Your task to perform on an android device: Clear all items from cart on amazon. Add "razer deathadder" to the cart on amazon Image 0: 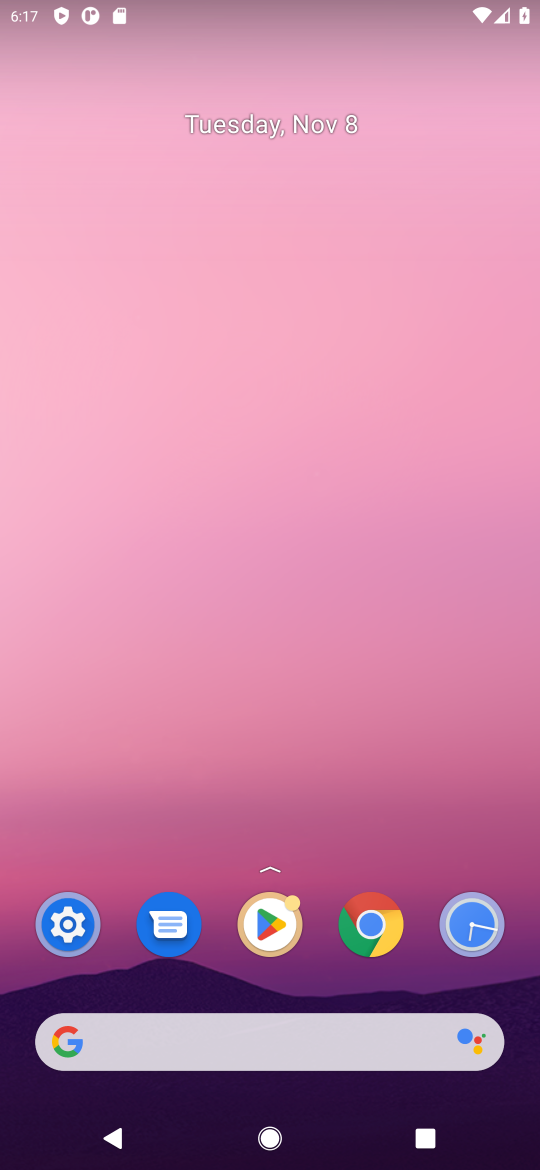
Step 0: click (275, 1039)
Your task to perform on an android device: Clear all items from cart on amazon. Add "razer deathadder" to the cart on amazon Image 1: 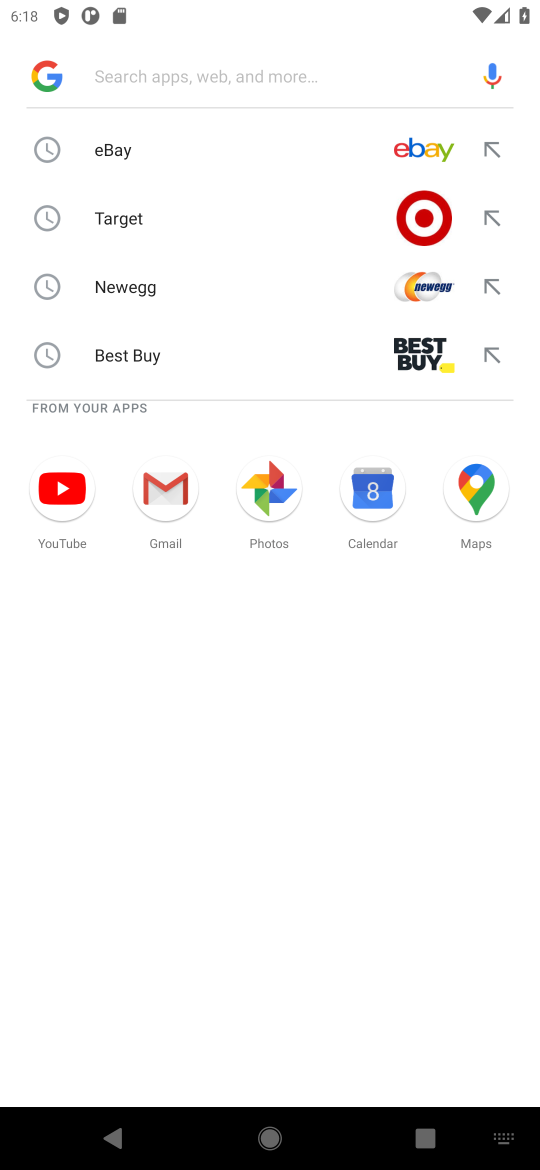
Step 1: type "amazon"
Your task to perform on an android device: Clear all items from cart on amazon. Add "razer deathadder" to the cart on amazon Image 2: 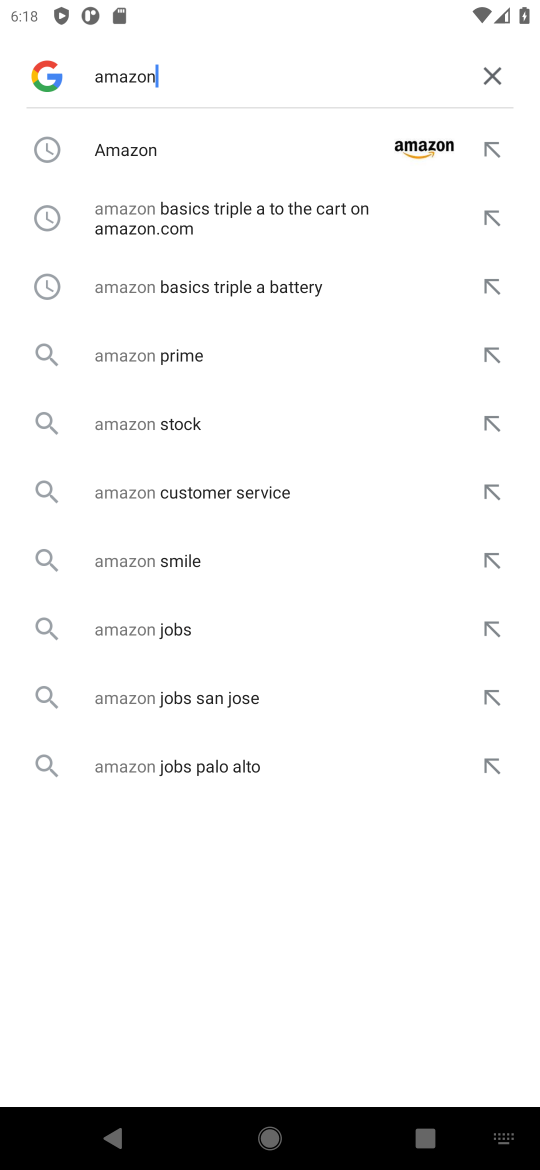
Step 2: click (324, 155)
Your task to perform on an android device: Clear all items from cart on amazon. Add "razer deathadder" to the cart on amazon Image 3: 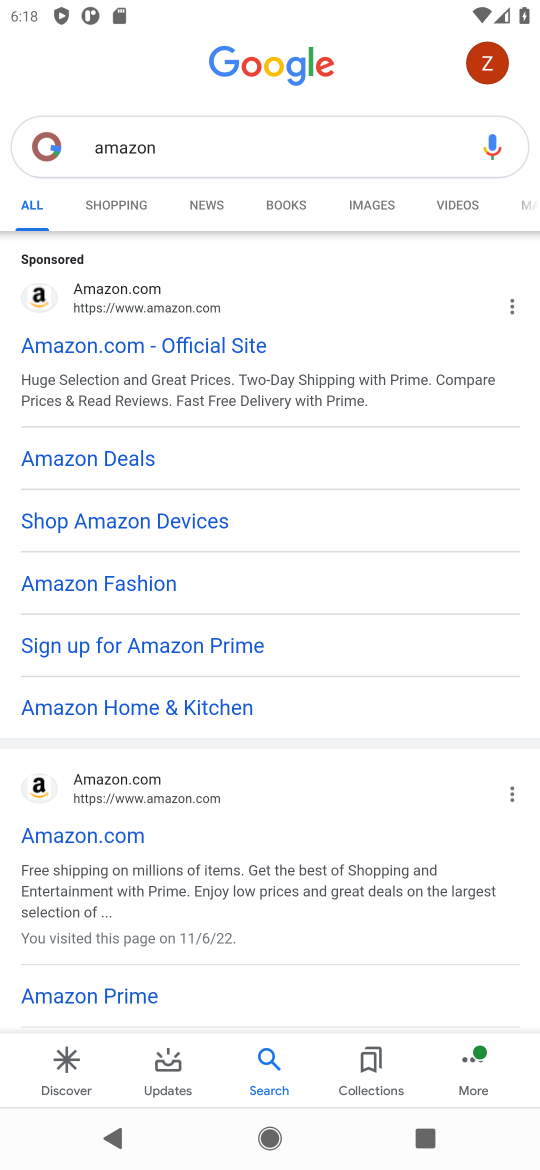
Step 3: click (134, 165)
Your task to perform on an android device: Clear all items from cart on amazon. Add "razer deathadder" to the cart on amazon Image 4: 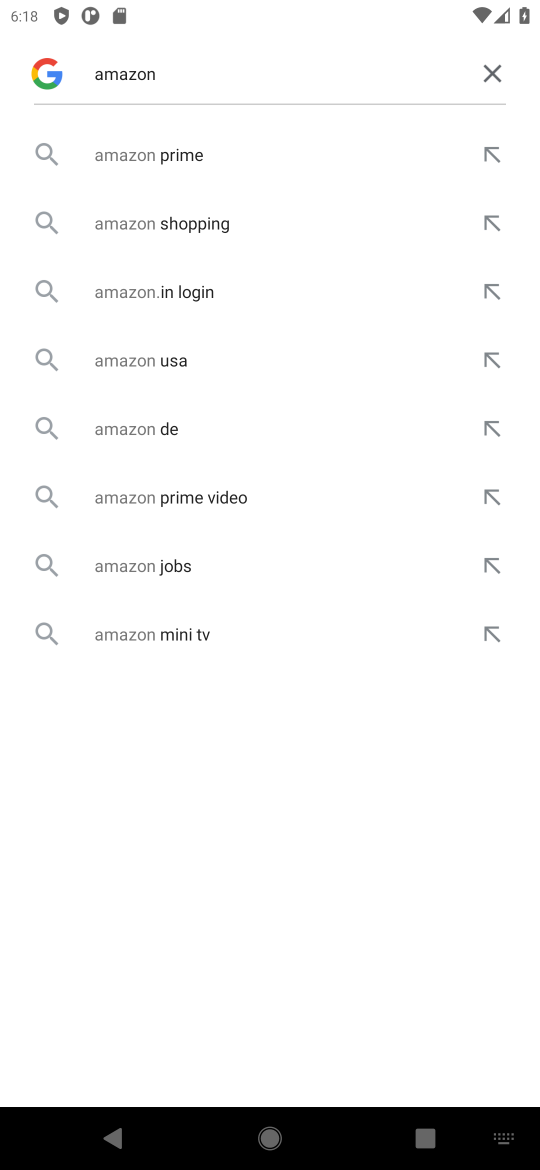
Step 4: click (81, 281)
Your task to perform on an android device: Clear all items from cart on amazon. Add "razer deathadder" to the cart on amazon Image 5: 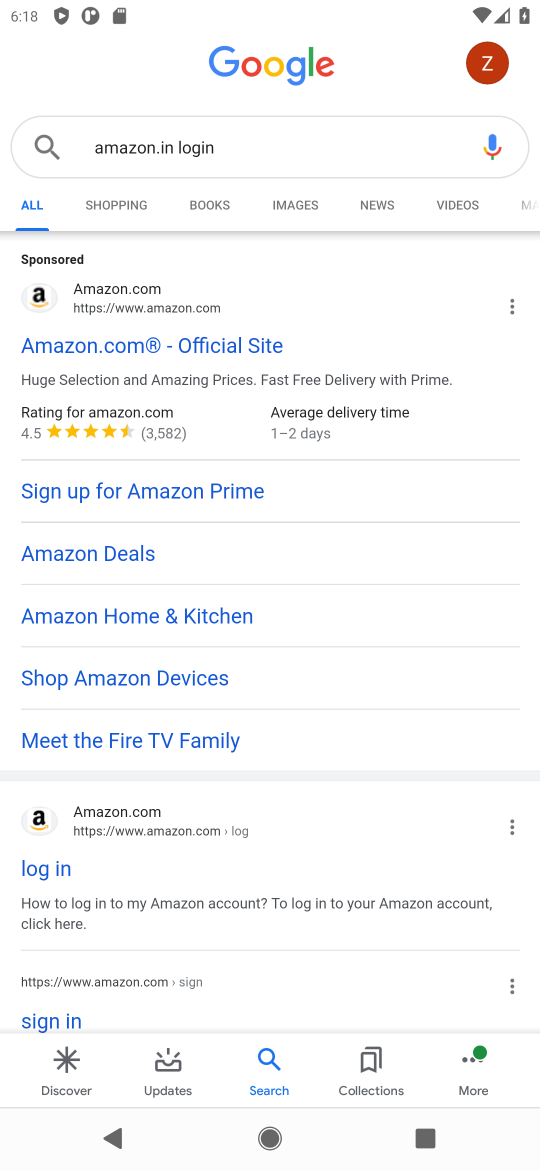
Step 5: click (88, 350)
Your task to perform on an android device: Clear all items from cart on amazon. Add "razer deathadder" to the cart on amazon Image 6: 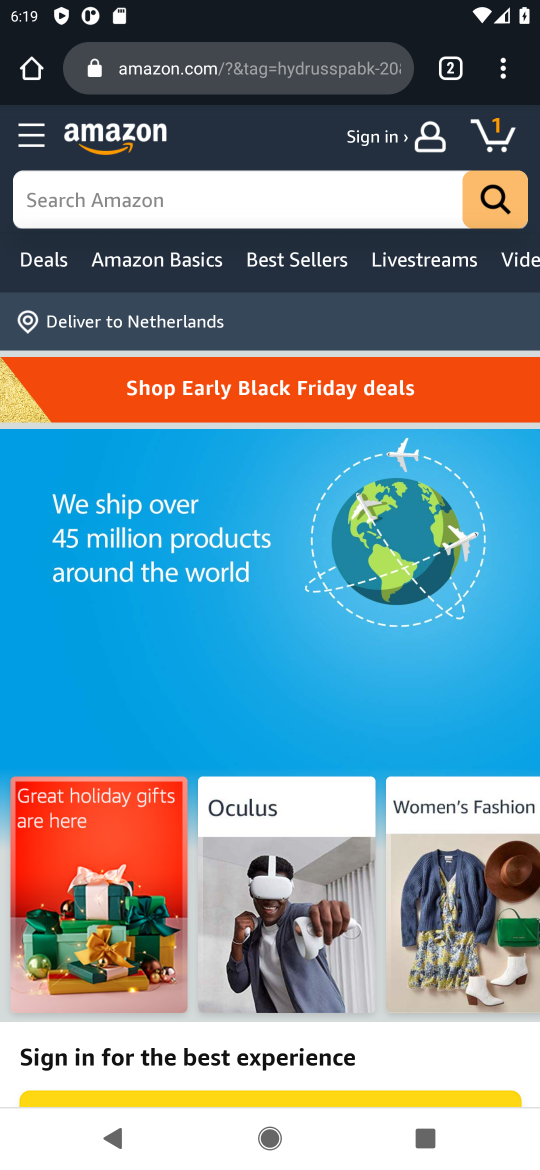
Step 6: click (342, 206)
Your task to perform on an android device: Clear all items from cart on amazon. Add "razer deathadder" to the cart on amazon Image 7: 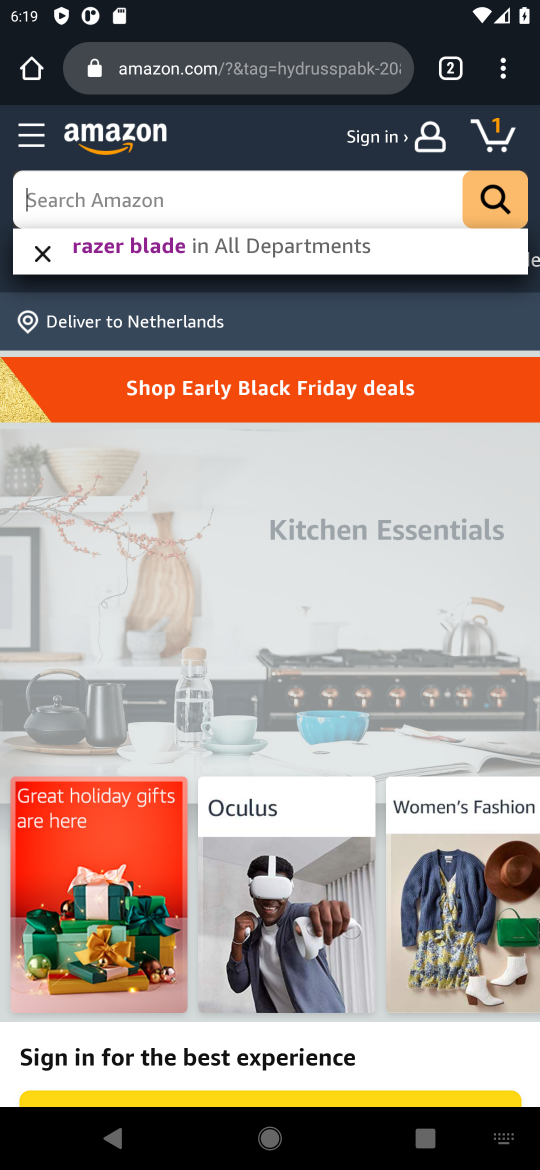
Step 7: click (180, 205)
Your task to perform on an android device: Clear all items from cart on amazon. Add "razer deathadder" to the cart on amazon Image 8: 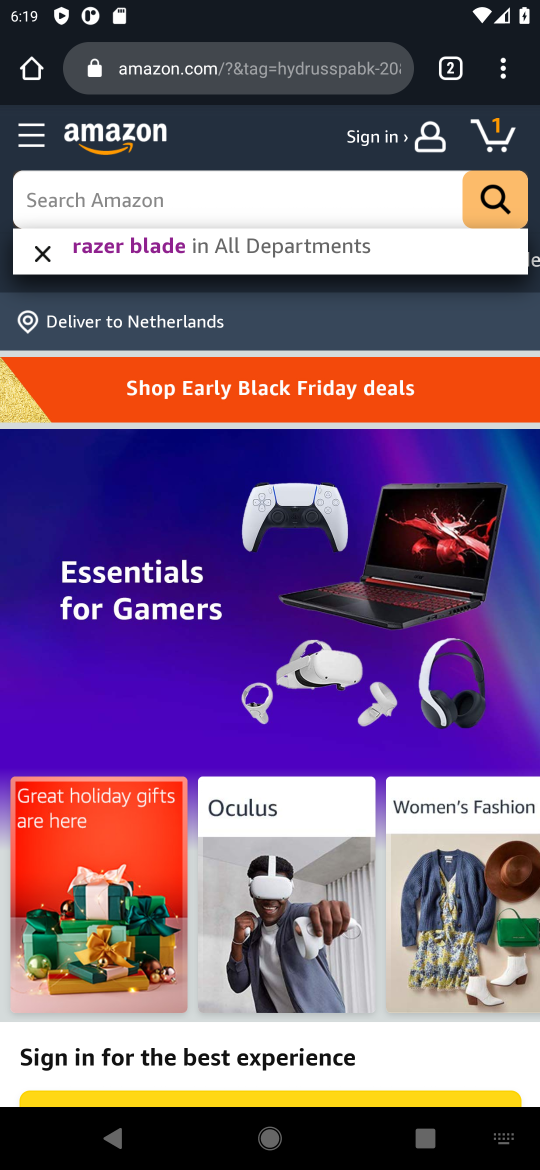
Step 8: type "razer deathadder"
Your task to perform on an android device: Clear all items from cart on amazon. Add "razer deathadder" to the cart on amazon Image 9: 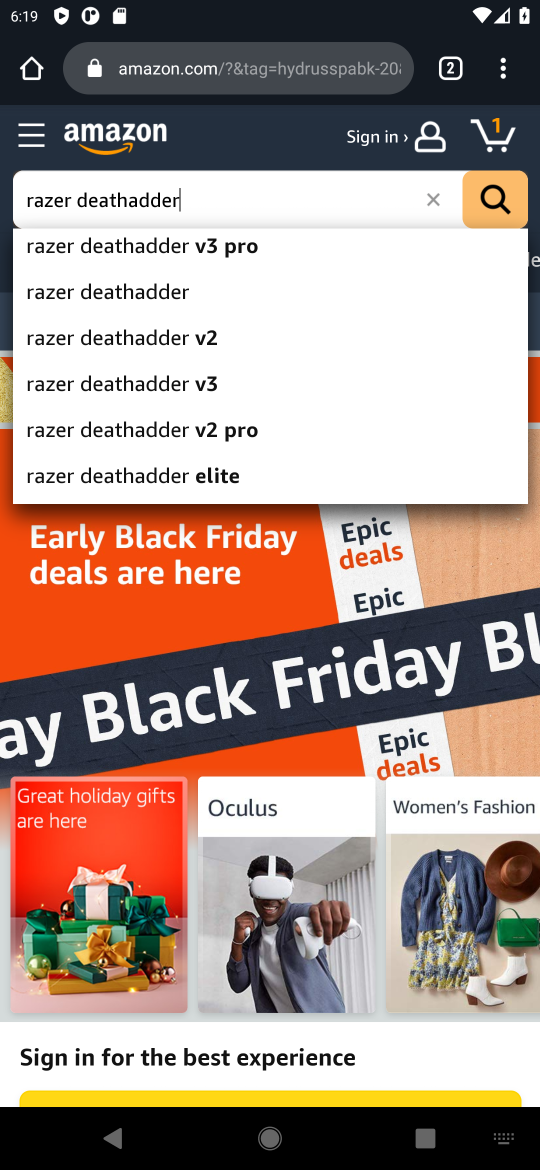
Step 9: click (161, 298)
Your task to perform on an android device: Clear all items from cart on amazon. Add "razer deathadder" to the cart on amazon Image 10: 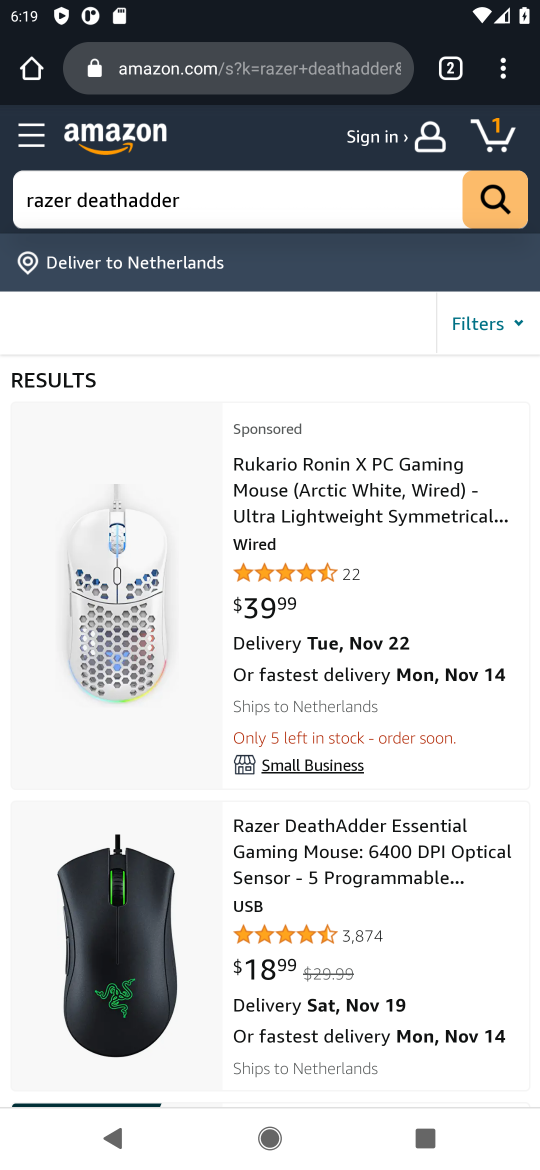
Step 10: click (297, 520)
Your task to perform on an android device: Clear all items from cart on amazon. Add "razer deathadder" to the cart on amazon Image 11: 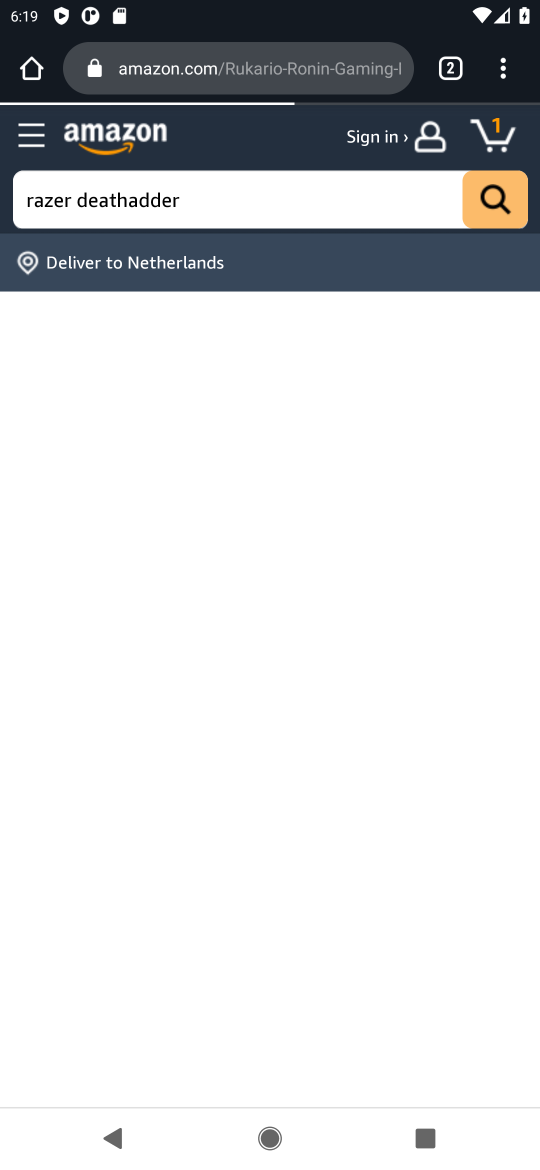
Step 11: click (277, 499)
Your task to perform on an android device: Clear all items from cart on amazon. Add "razer deathadder" to the cart on amazon Image 12: 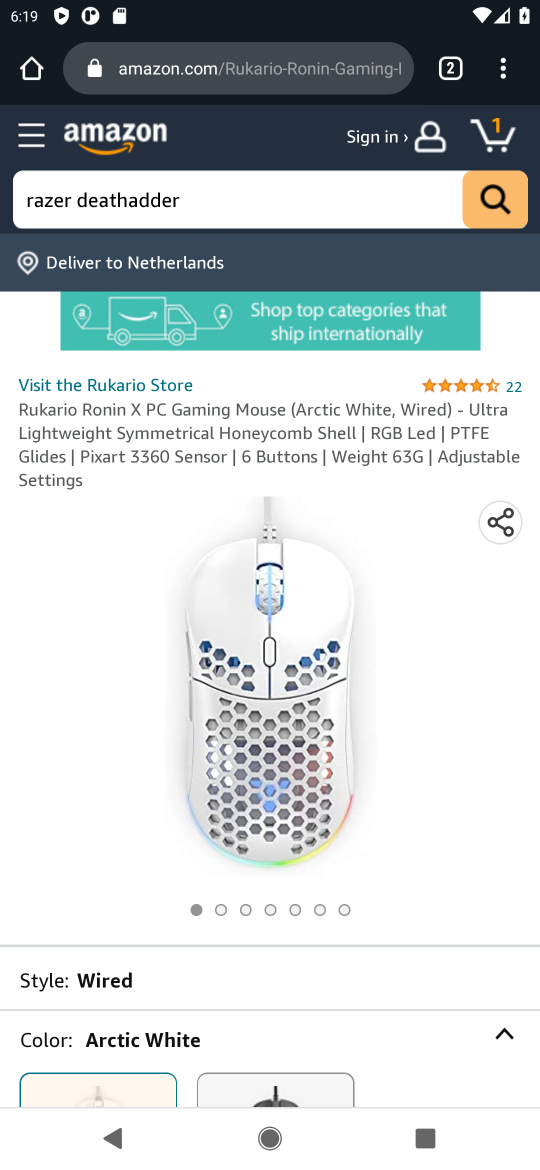
Step 12: click (494, 136)
Your task to perform on an android device: Clear all items from cart on amazon. Add "razer deathadder" to the cart on amazon Image 13: 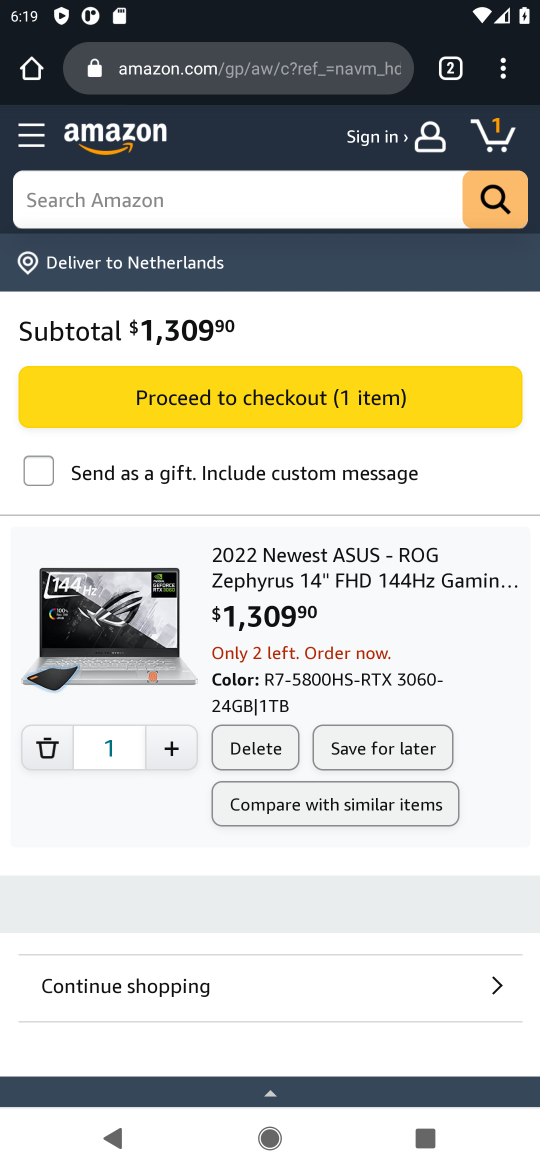
Step 13: click (494, 136)
Your task to perform on an android device: Clear all items from cart on amazon. Add "razer deathadder" to the cart on amazon Image 14: 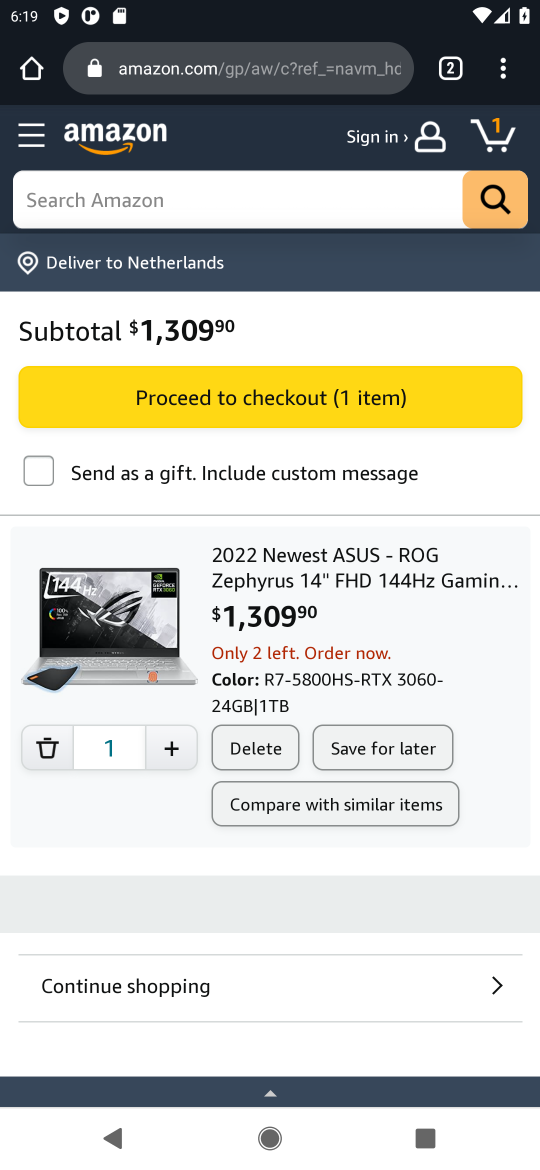
Step 14: click (243, 739)
Your task to perform on an android device: Clear all items from cart on amazon. Add "razer deathadder" to the cart on amazon Image 15: 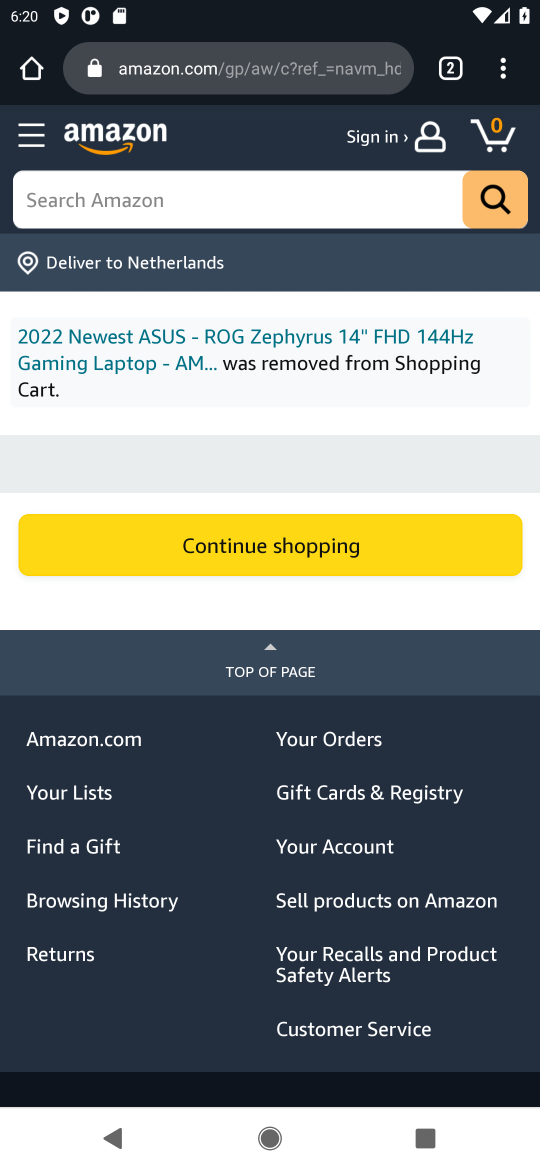
Step 15: task complete